Your task to perform on an android device: turn off translation in the chrome app Image 0: 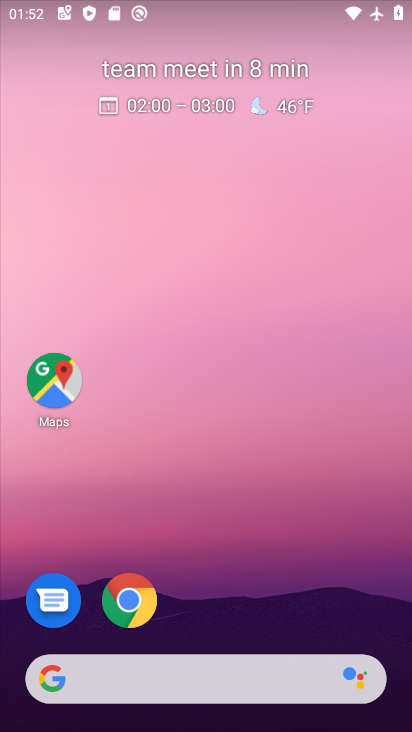
Step 0: click (149, 594)
Your task to perform on an android device: turn off translation in the chrome app Image 1: 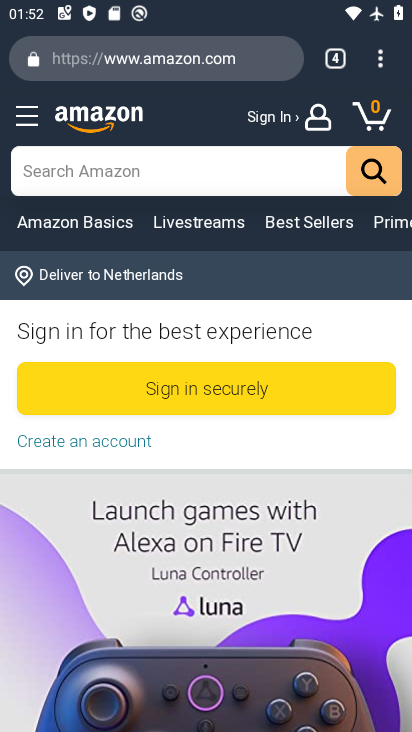
Step 1: click (373, 76)
Your task to perform on an android device: turn off translation in the chrome app Image 2: 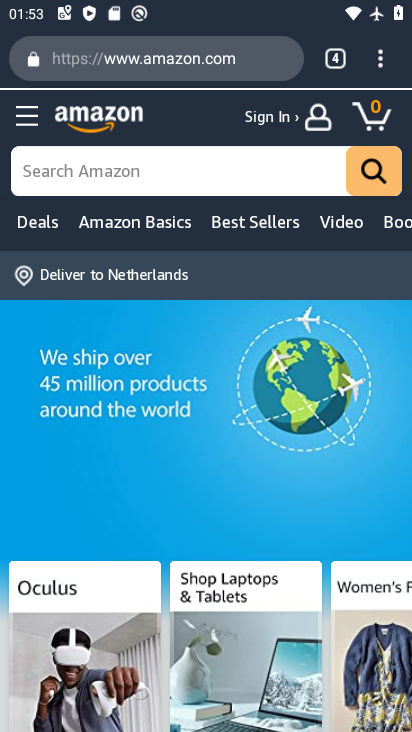
Step 2: drag from (380, 45) to (162, 637)
Your task to perform on an android device: turn off translation in the chrome app Image 3: 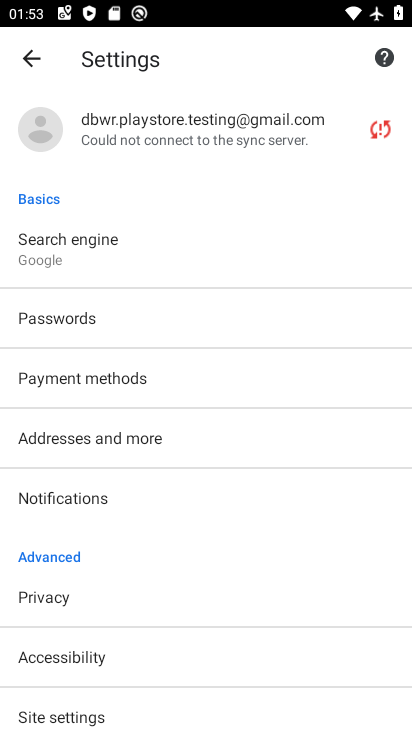
Step 3: drag from (193, 525) to (163, 207)
Your task to perform on an android device: turn off translation in the chrome app Image 4: 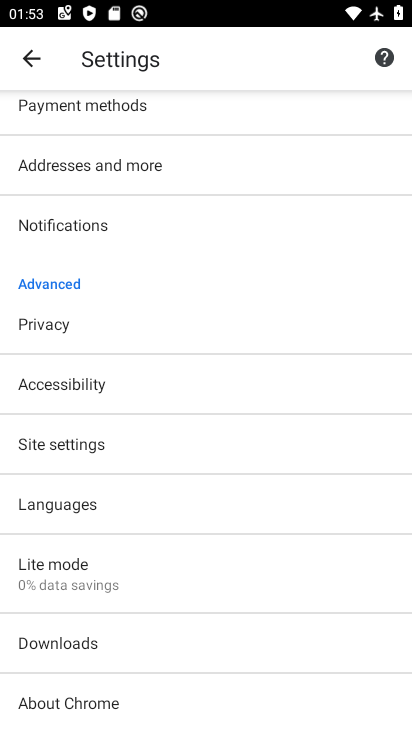
Step 4: click (79, 506)
Your task to perform on an android device: turn off translation in the chrome app Image 5: 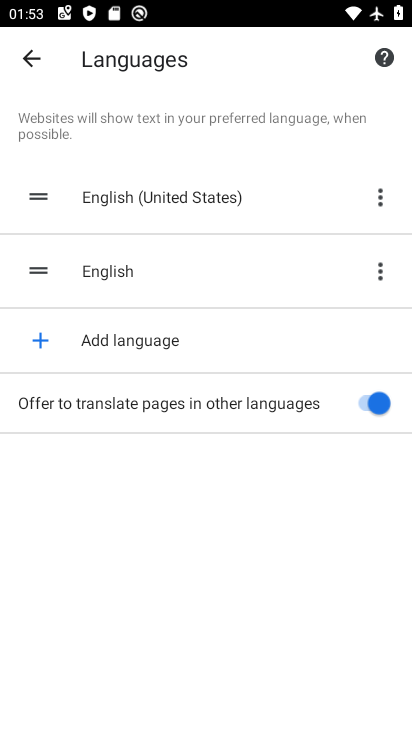
Step 5: click (365, 408)
Your task to perform on an android device: turn off translation in the chrome app Image 6: 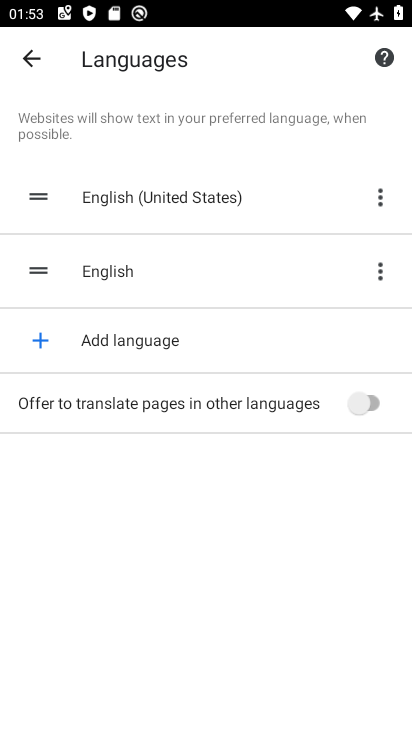
Step 6: task complete